Your task to perform on an android device: Search for Italian restaurants on Maps Image 0: 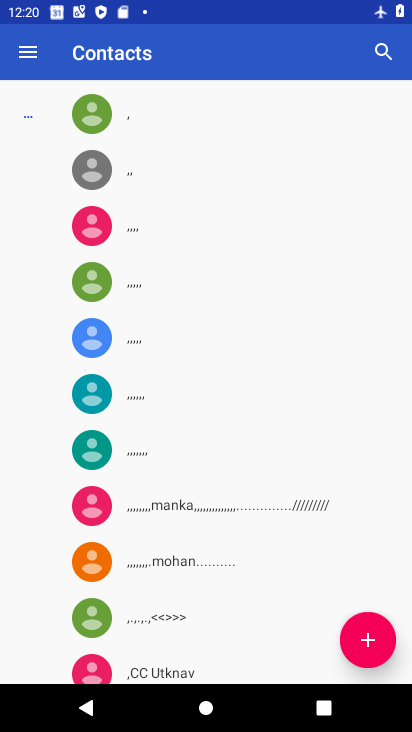
Step 0: press home button
Your task to perform on an android device: Search for Italian restaurants on Maps Image 1: 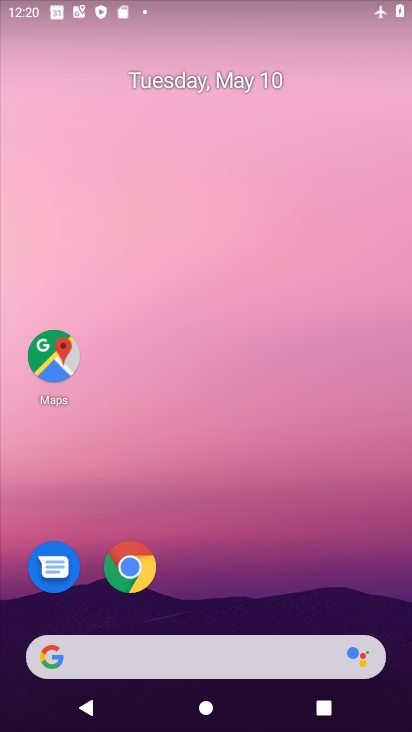
Step 1: drag from (332, 611) to (237, 98)
Your task to perform on an android device: Search for Italian restaurants on Maps Image 2: 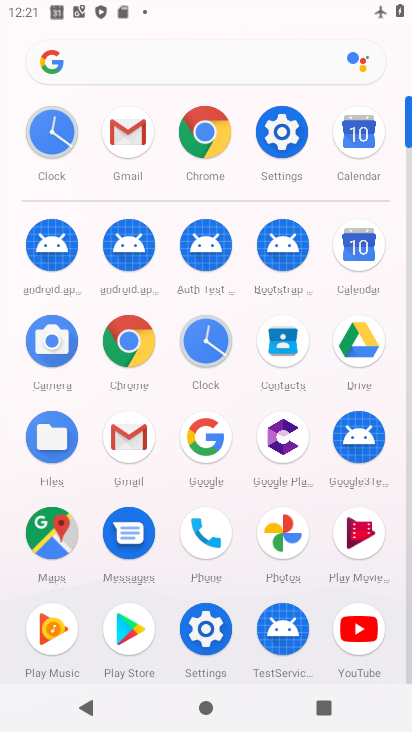
Step 2: click (56, 540)
Your task to perform on an android device: Search for Italian restaurants on Maps Image 3: 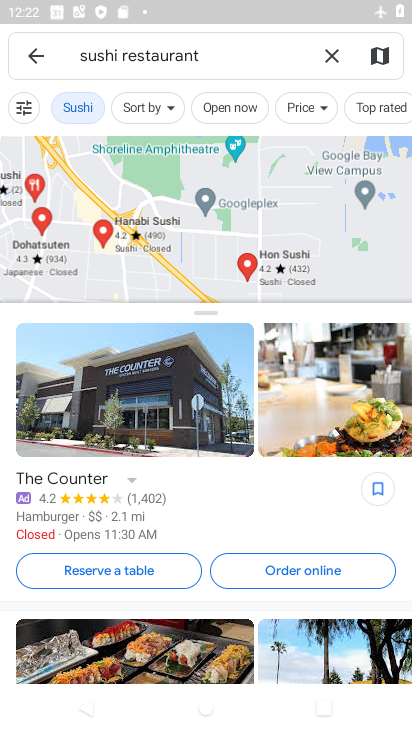
Step 3: click (332, 59)
Your task to perform on an android device: Search for Italian restaurants on Maps Image 4: 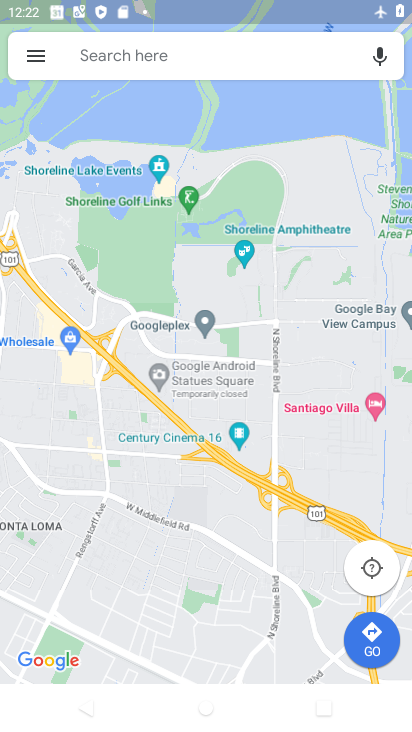
Step 4: click (120, 49)
Your task to perform on an android device: Search for Italian restaurants on Maps Image 5: 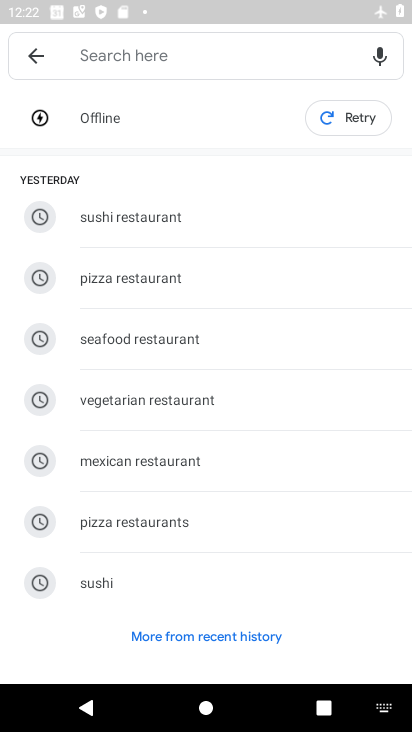
Step 5: click (194, 630)
Your task to perform on an android device: Search for Italian restaurants on Maps Image 6: 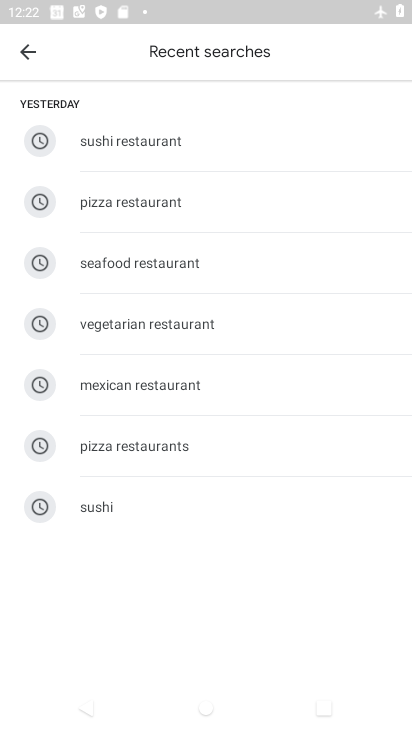
Step 6: press back button
Your task to perform on an android device: Search for Italian restaurants on Maps Image 7: 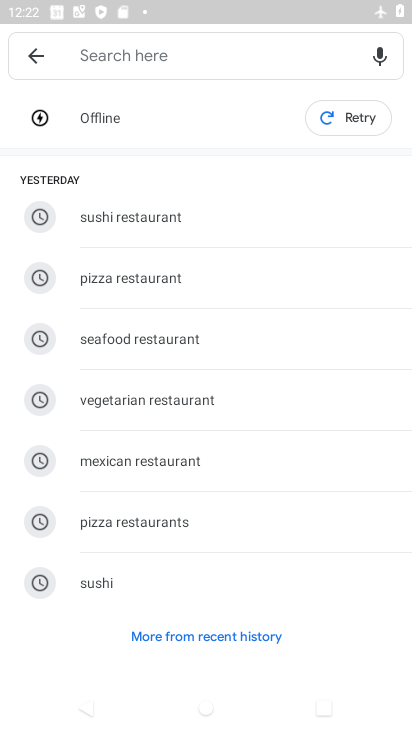
Step 7: click (135, 58)
Your task to perform on an android device: Search for Italian restaurants on Maps Image 8: 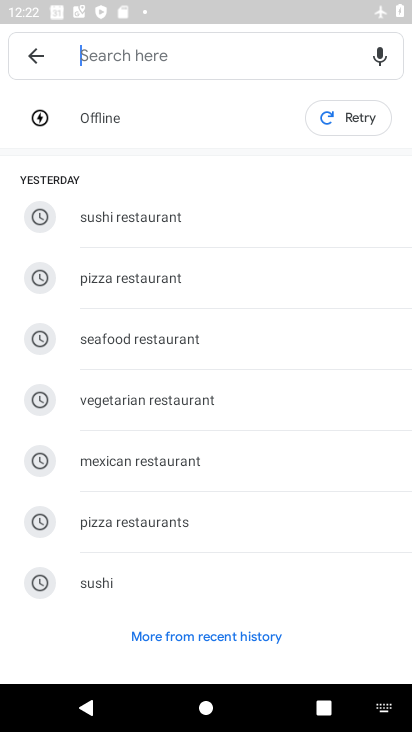
Step 8: task complete